Your task to perform on an android device: Open Reddit.com Image 0: 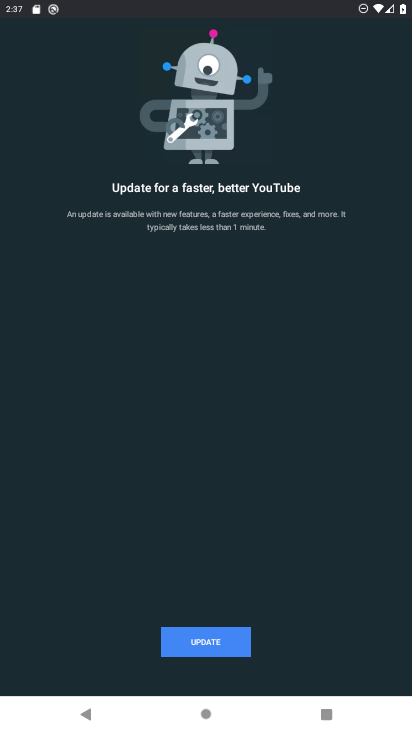
Step 0: press home button
Your task to perform on an android device: Open Reddit.com Image 1: 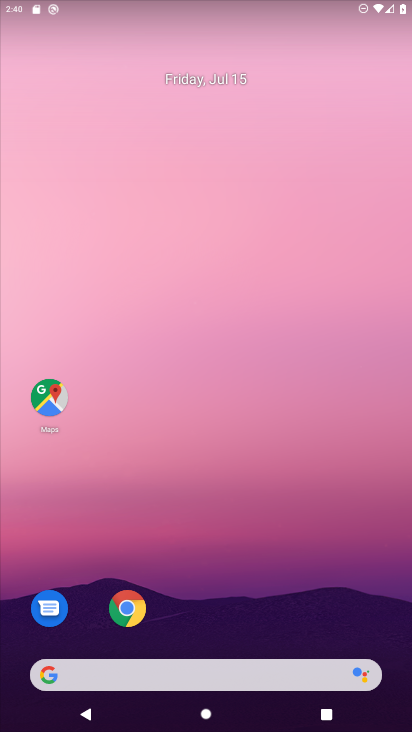
Step 1: click (282, 666)
Your task to perform on an android device: Open Reddit.com Image 2: 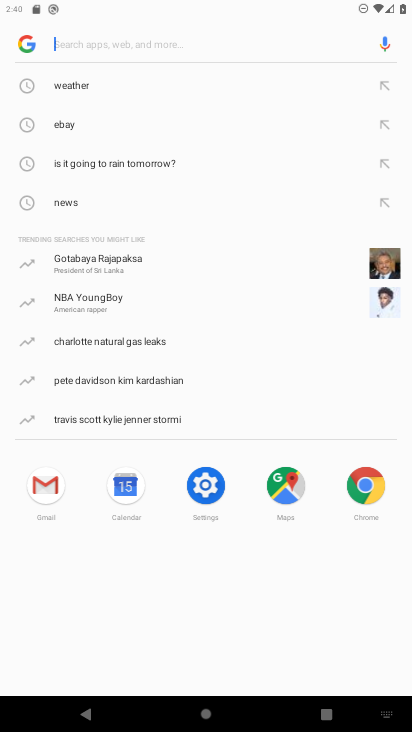
Step 2: type "reddit.com"
Your task to perform on an android device: Open Reddit.com Image 3: 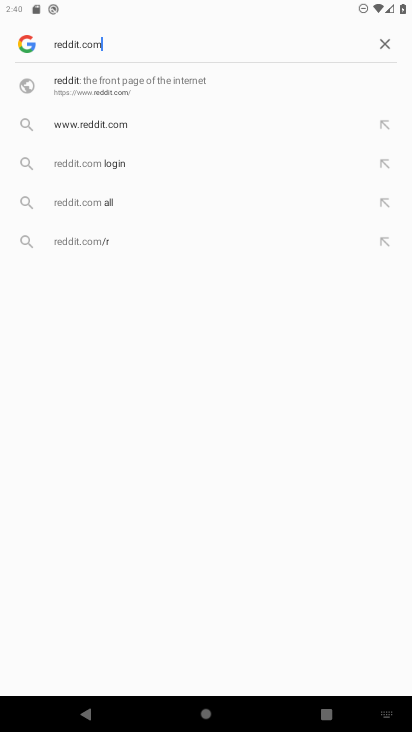
Step 3: click (258, 91)
Your task to perform on an android device: Open Reddit.com Image 4: 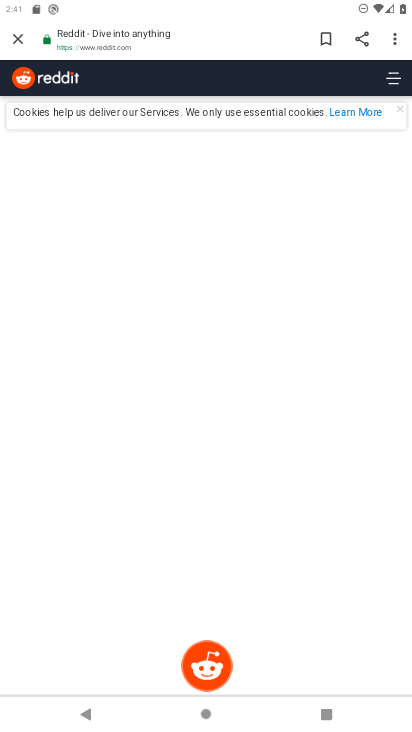
Step 4: task complete